Your task to perform on an android device: Show me popular games on the Play Store Image 0: 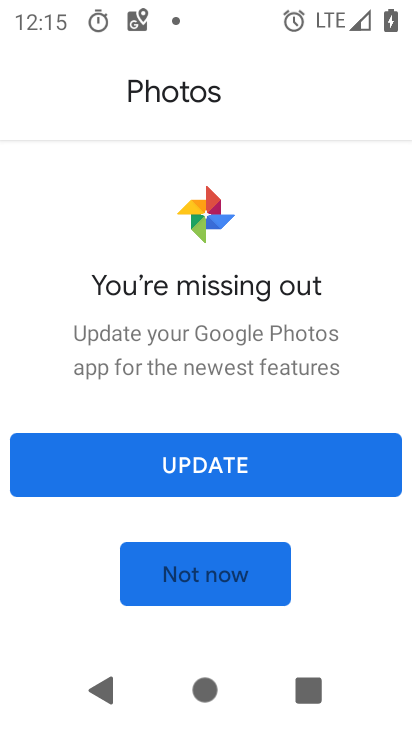
Step 0: press home button
Your task to perform on an android device: Show me popular games on the Play Store Image 1: 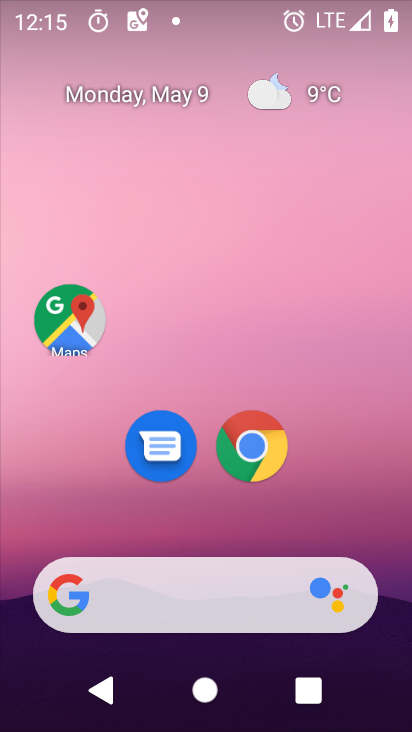
Step 1: drag from (380, 553) to (319, 3)
Your task to perform on an android device: Show me popular games on the Play Store Image 2: 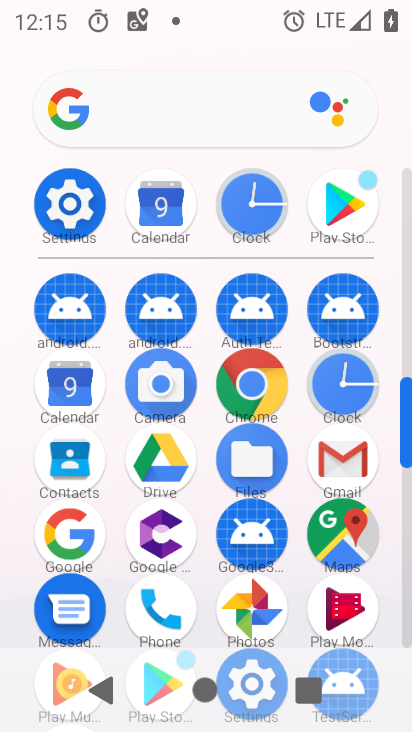
Step 2: click (409, 564)
Your task to perform on an android device: Show me popular games on the Play Store Image 3: 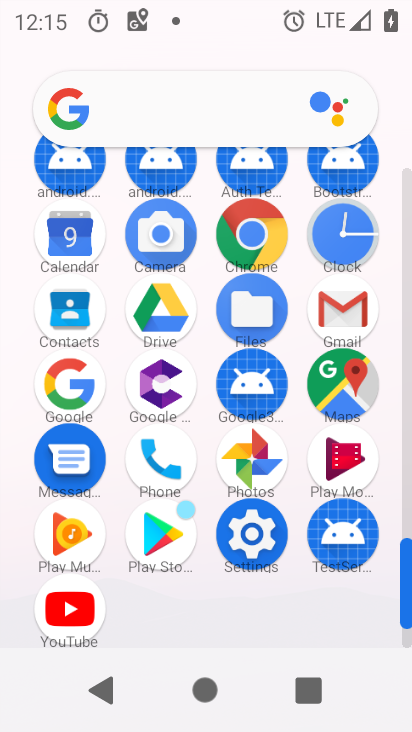
Step 3: click (165, 537)
Your task to perform on an android device: Show me popular games on the Play Store Image 4: 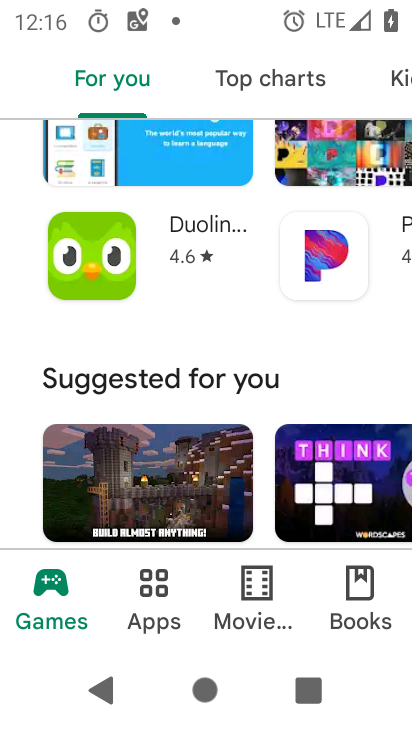
Step 4: task complete